Your task to perform on an android device: set default search engine in the chrome app Image 0: 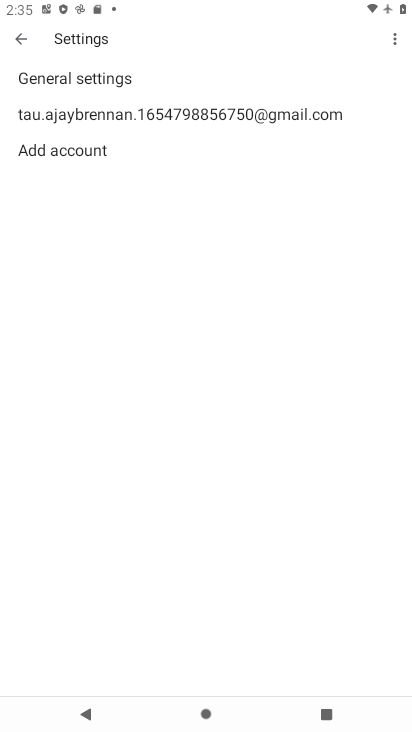
Step 0: press home button
Your task to perform on an android device: set default search engine in the chrome app Image 1: 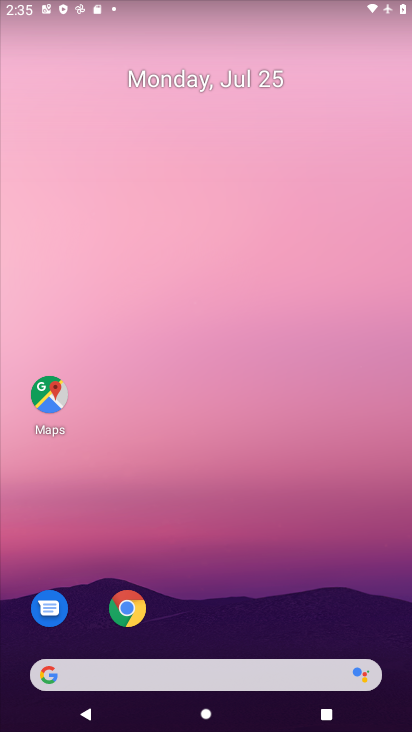
Step 1: drag from (175, 698) to (334, 43)
Your task to perform on an android device: set default search engine in the chrome app Image 2: 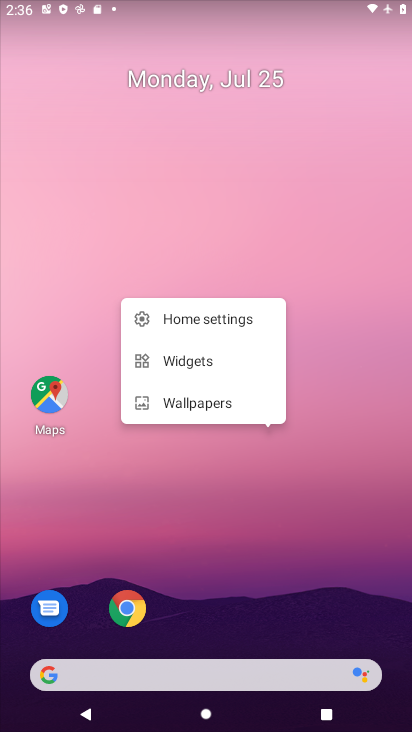
Step 2: click (288, 593)
Your task to perform on an android device: set default search engine in the chrome app Image 3: 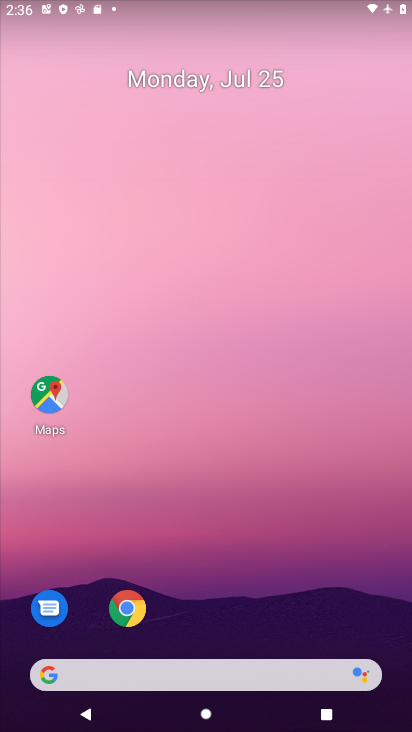
Step 3: drag from (216, 564) to (408, 6)
Your task to perform on an android device: set default search engine in the chrome app Image 4: 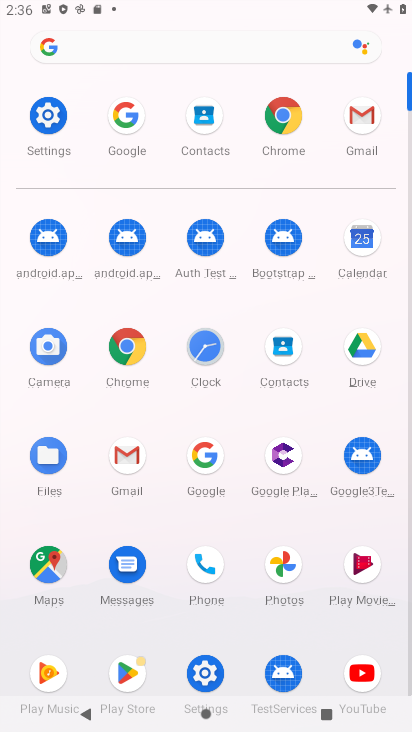
Step 4: click (146, 366)
Your task to perform on an android device: set default search engine in the chrome app Image 5: 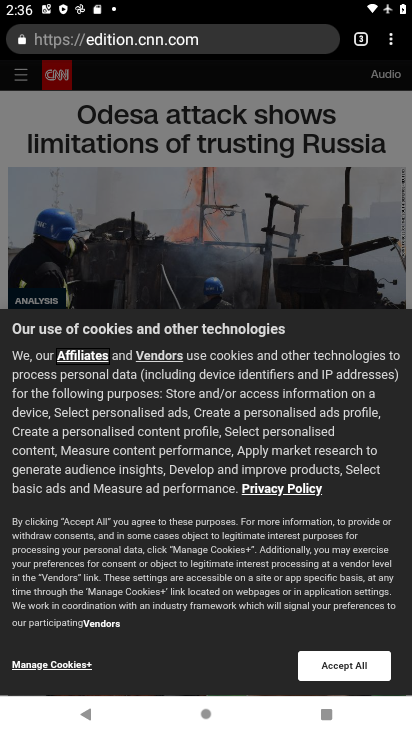
Step 5: click (395, 44)
Your task to perform on an android device: set default search engine in the chrome app Image 6: 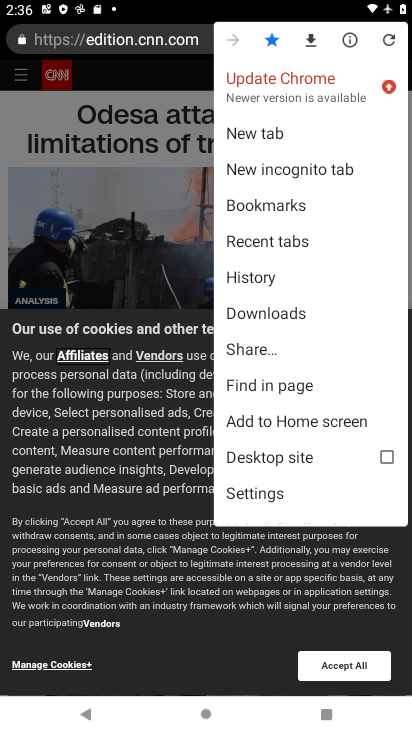
Step 6: click (277, 494)
Your task to perform on an android device: set default search engine in the chrome app Image 7: 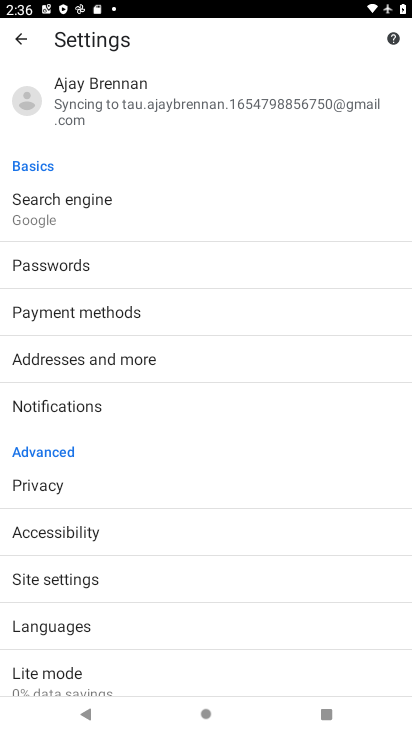
Step 7: click (138, 214)
Your task to perform on an android device: set default search engine in the chrome app Image 8: 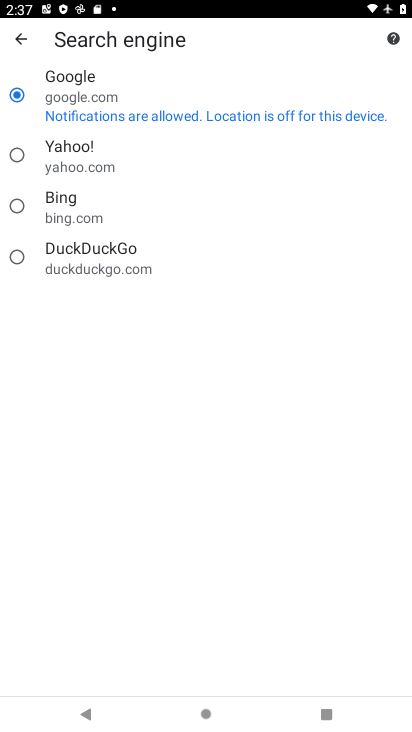
Step 8: task complete